Your task to perform on an android device: delete the emails in spam in the gmail app Image 0: 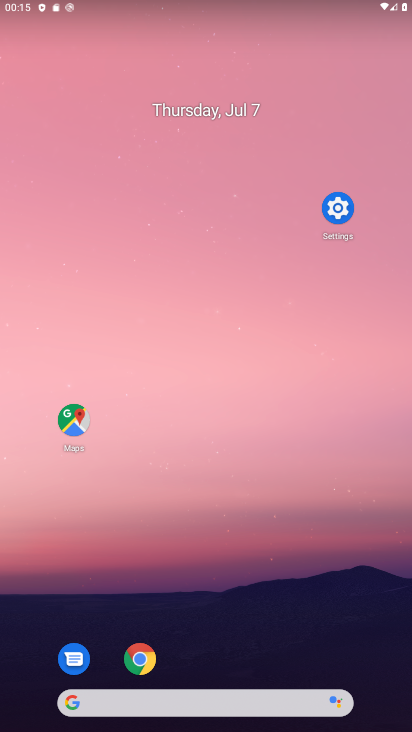
Step 0: drag from (223, 703) to (159, 186)
Your task to perform on an android device: delete the emails in spam in the gmail app Image 1: 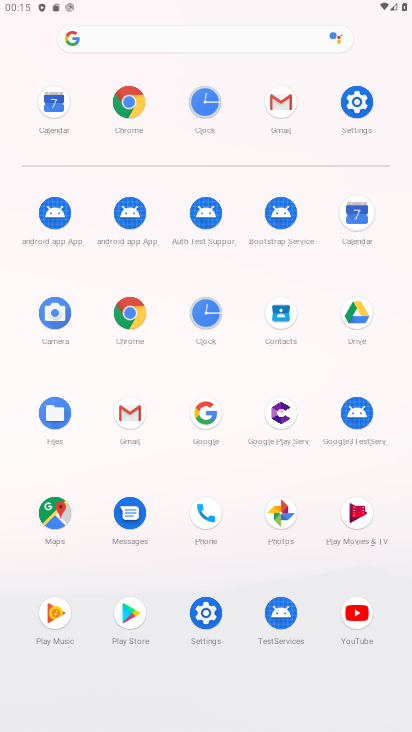
Step 1: click (114, 417)
Your task to perform on an android device: delete the emails in spam in the gmail app Image 2: 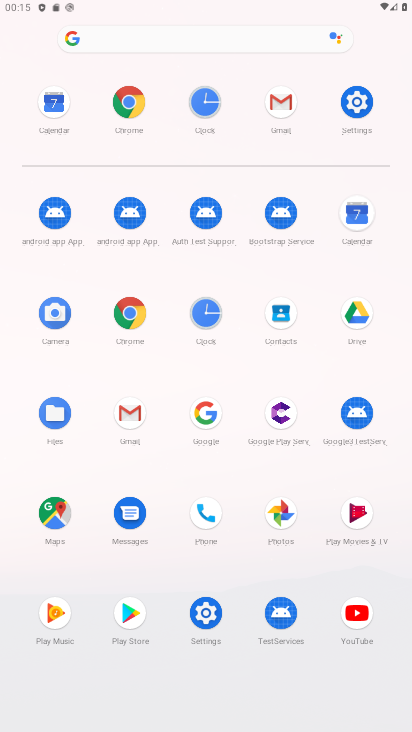
Step 2: click (127, 422)
Your task to perform on an android device: delete the emails in spam in the gmail app Image 3: 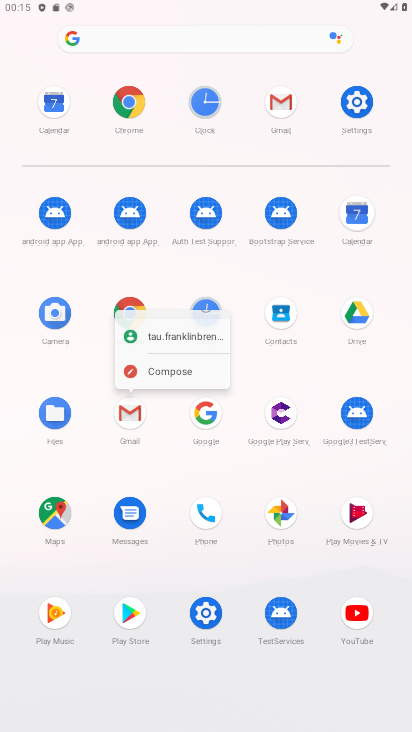
Step 3: click (127, 404)
Your task to perform on an android device: delete the emails in spam in the gmail app Image 4: 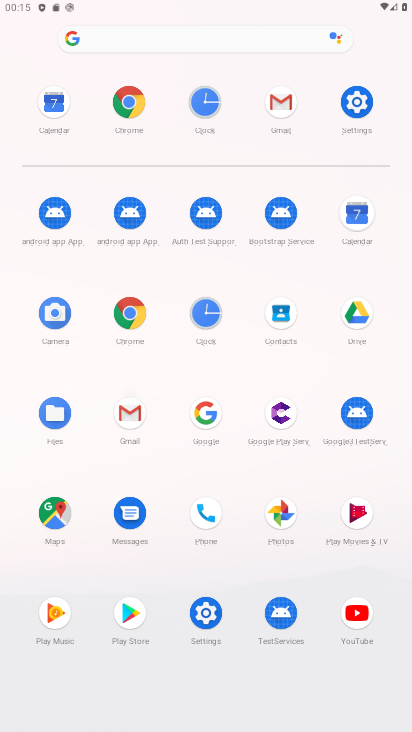
Step 4: click (127, 404)
Your task to perform on an android device: delete the emails in spam in the gmail app Image 5: 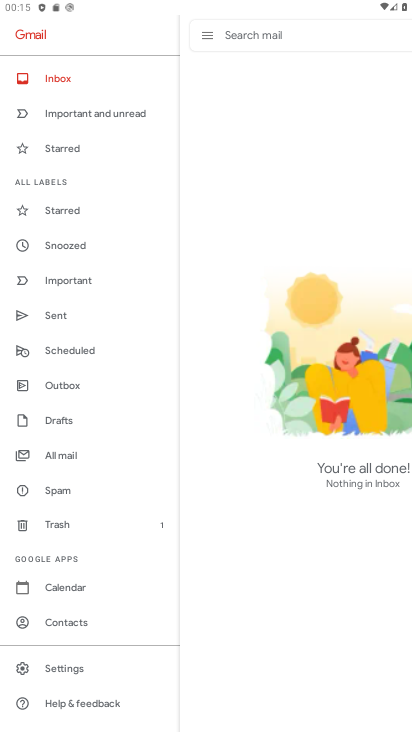
Step 5: click (62, 459)
Your task to perform on an android device: delete the emails in spam in the gmail app Image 6: 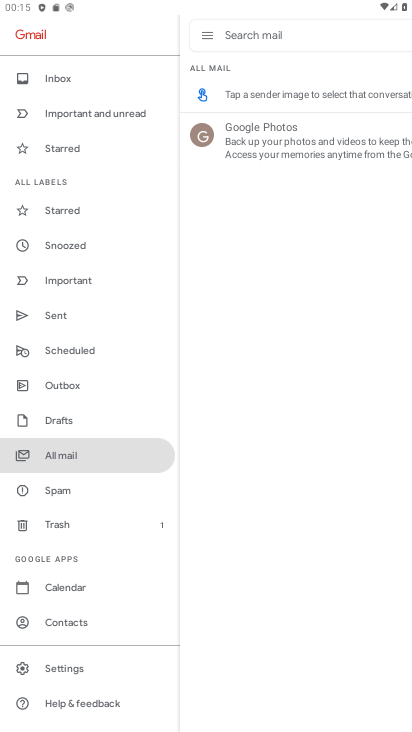
Step 6: click (49, 490)
Your task to perform on an android device: delete the emails in spam in the gmail app Image 7: 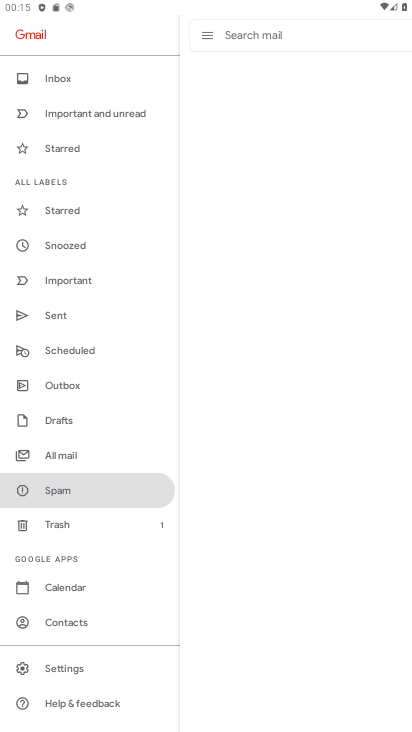
Step 7: click (52, 491)
Your task to perform on an android device: delete the emails in spam in the gmail app Image 8: 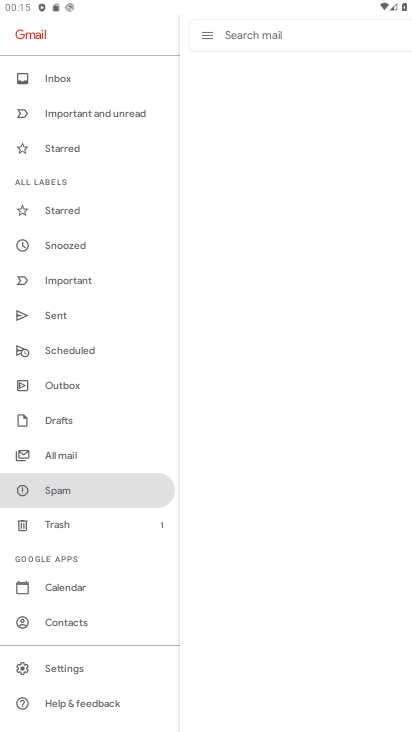
Step 8: click (52, 491)
Your task to perform on an android device: delete the emails in spam in the gmail app Image 9: 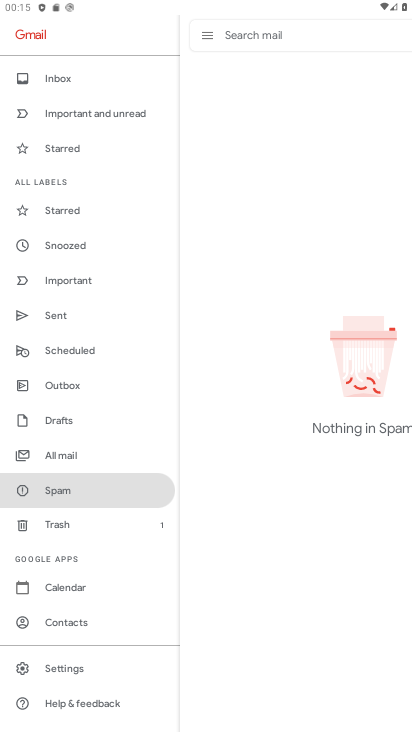
Step 9: task complete